Your task to perform on an android device: turn off improve location accuracy Image 0: 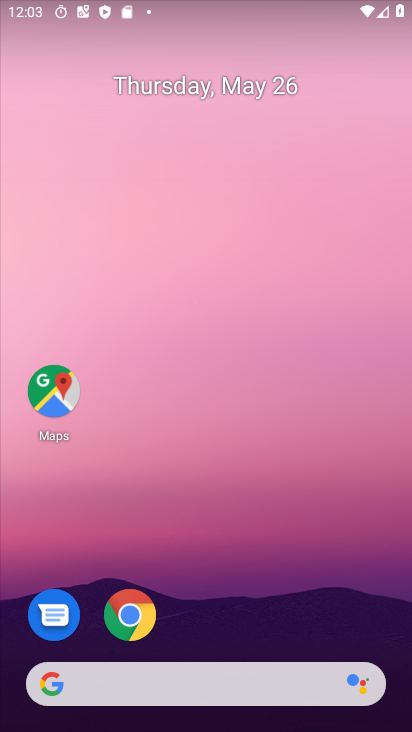
Step 0: drag from (258, 625) to (175, 243)
Your task to perform on an android device: turn off improve location accuracy Image 1: 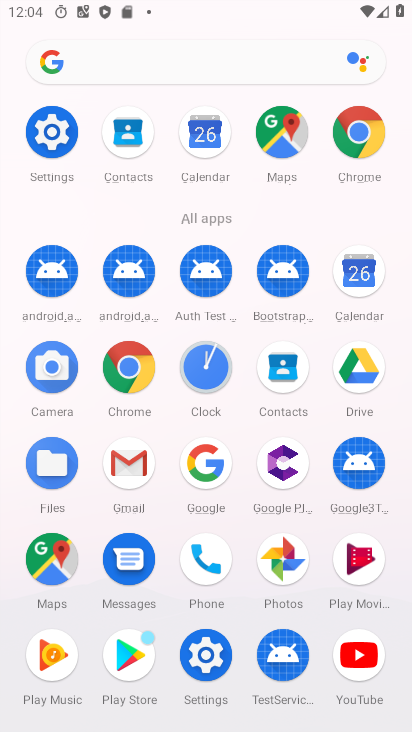
Step 1: click (48, 138)
Your task to perform on an android device: turn off improve location accuracy Image 2: 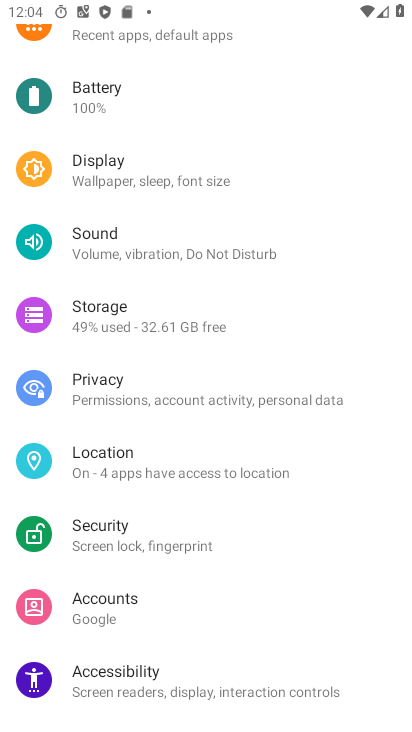
Step 2: click (150, 465)
Your task to perform on an android device: turn off improve location accuracy Image 3: 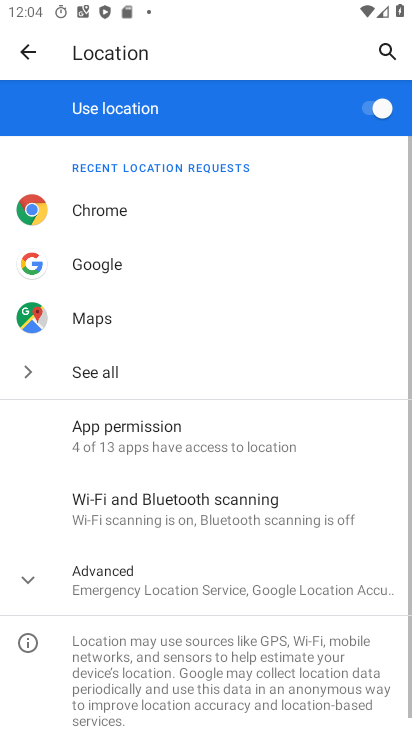
Step 3: click (183, 568)
Your task to perform on an android device: turn off improve location accuracy Image 4: 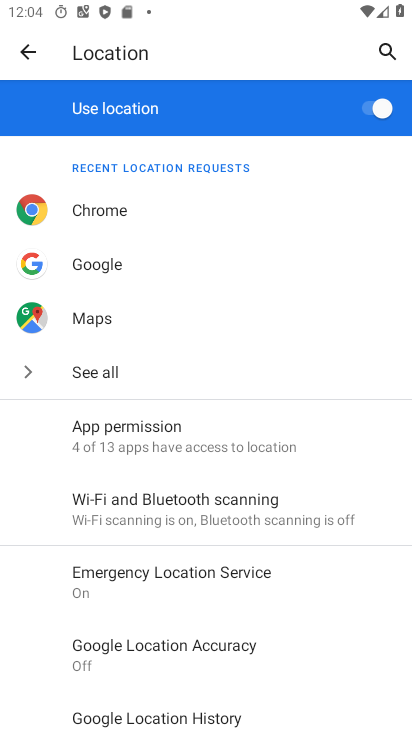
Step 4: click (228, 653)
Your task to perform on an android device: turn off improve location accuracy Image 5: 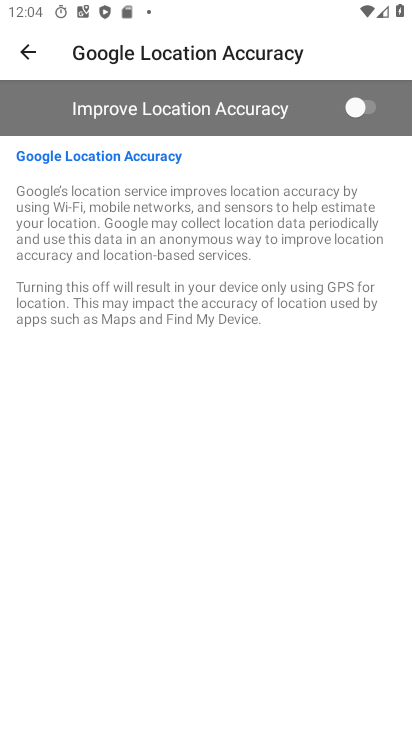
Step 5: task complete